Your task to perform on an android device: turn off smart reply in the gmail app Image 0: 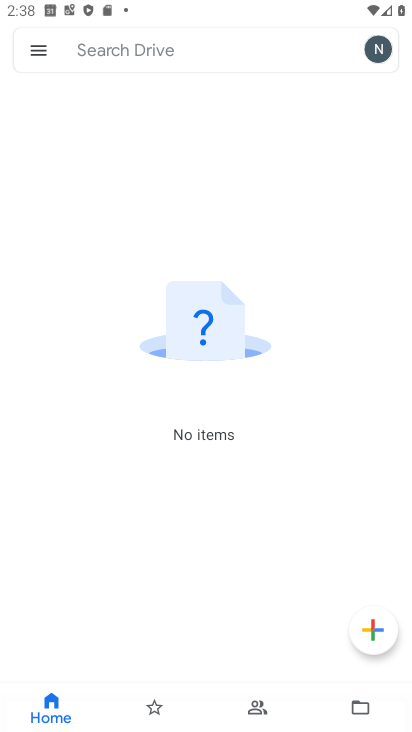
Step 0: press home button
Your task to perform on an android device: turn off smart reply in the gmail app Image 1: 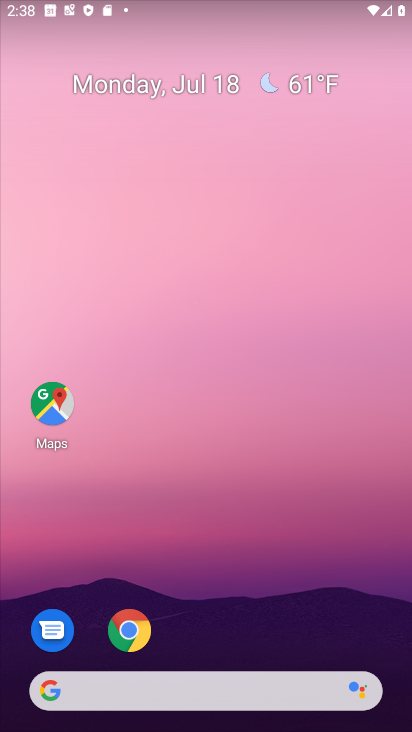
Step 1: drag from (238, 596) to (294, 73)
Your task to perform on an android device: turn off smart reply in the gmail app Image 2: 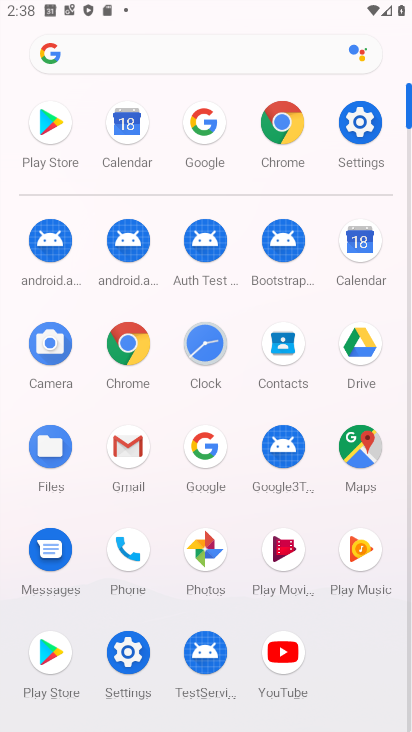
Step 2: click (123, 447)
Your task to perform on an android device: turn off smart reply in the gmail app Image 3: 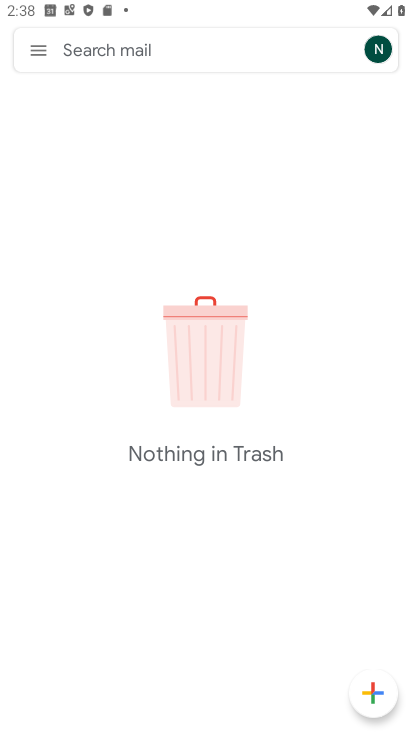
Step 3: click (44, 49)
Your task to perform on an android device: turn off smart reply in the gmail app Image 4: 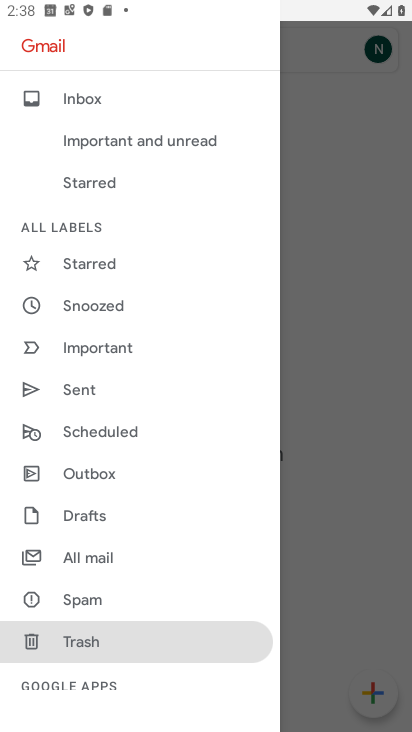
Step 4: drag from (166, 490) to (199, 166)
Your task to perform on an android device: turn off smart reply in the gmail app Image 5: 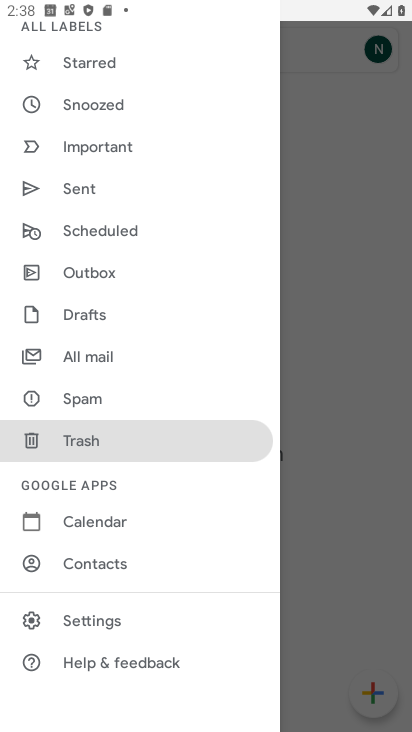
Step 5: click (101, 615)
Your task to perform on an android device: turn off smart reply in the gmail app Image 6: 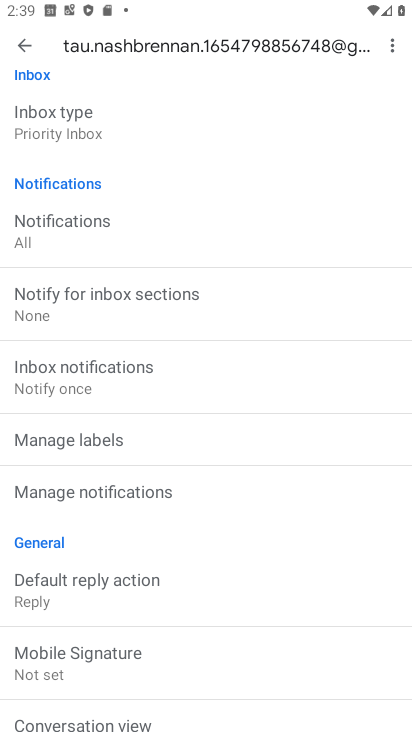
Step 6: task complete